Your task to perform on an android device: turn off improve location accuracy Image 0: 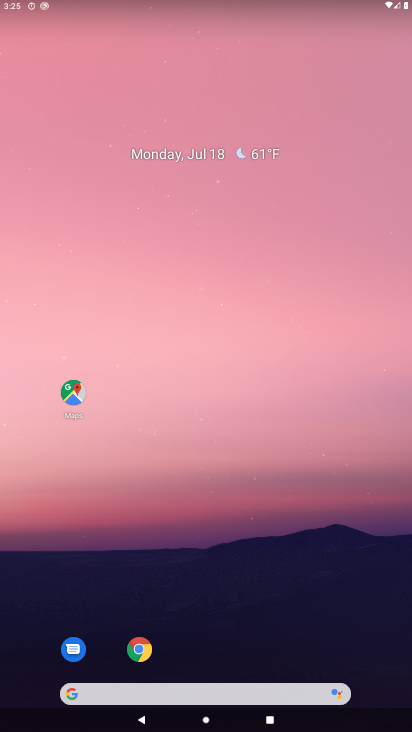
Step 0: drag from (33, 709) to (111, 338)
Your task to perform on an android device: turn off improve location accuracy Image 1: 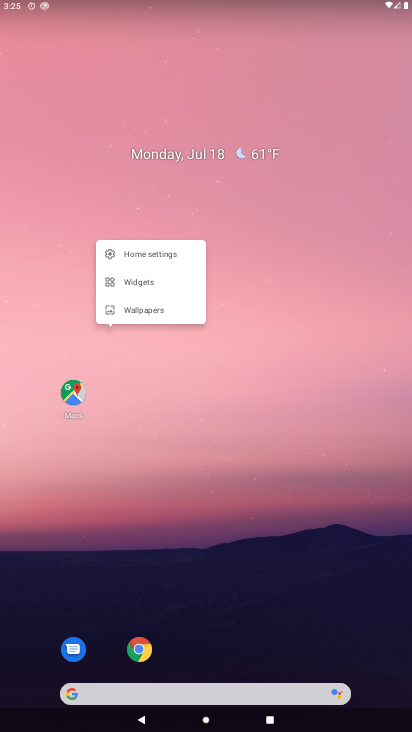
Step 1: drag from (15, 675) to (268, 169)
Your task to perform on an android device: turn off improve location accuracy Image 2: 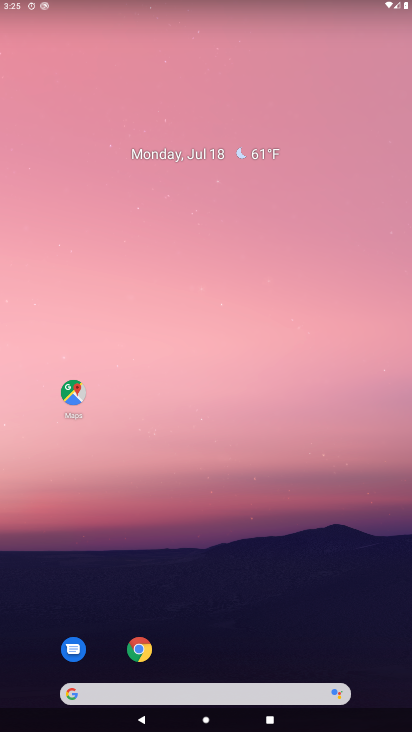
Step 2: drag from (15, 684) to (194, 104)
Your task to perform on an android device: turn off improve location accuracy Image 3: 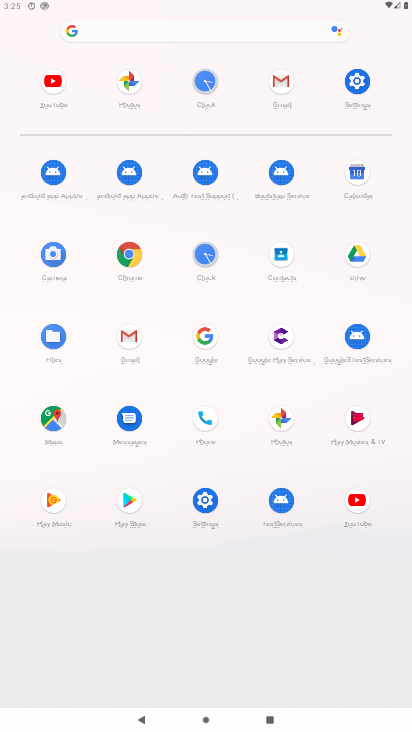
Step 3: click (210, 508)
Your task to perform on an android device: turn off improve location accuracy Image 4: 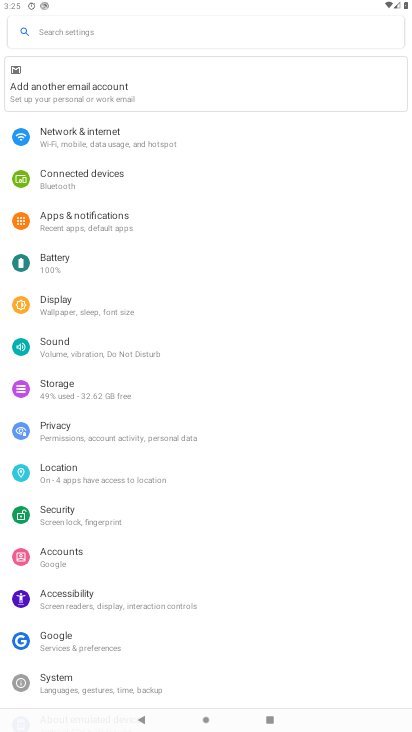
Step 4: click (100, 476)
Your task to perform on an android device: turn off improve location accuracy Image 5: 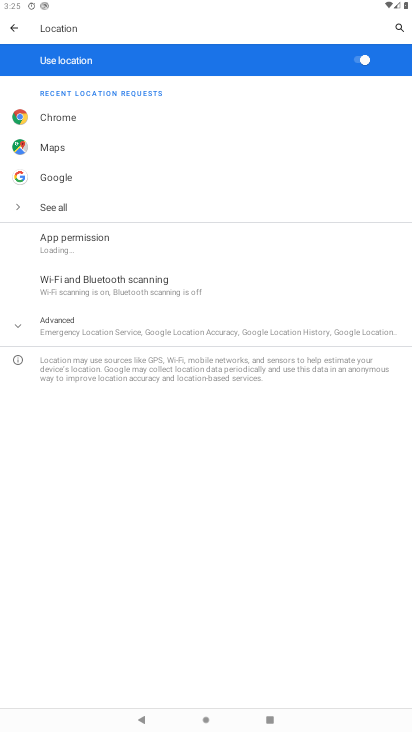
Step 5: click (74, 331)
Your task to perform on an android device: turn off improve location accuracy Image 6: 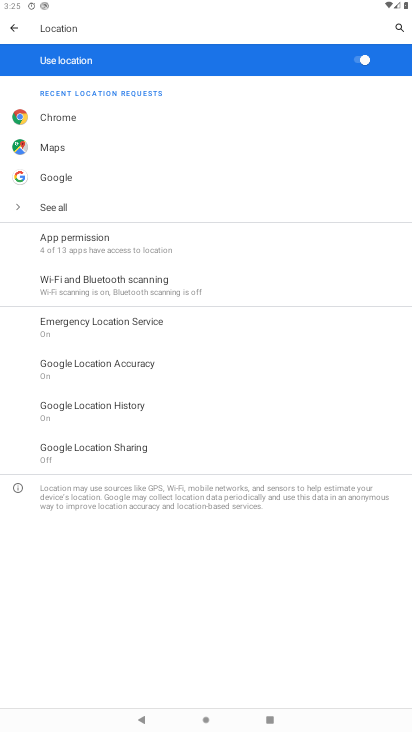
Step 6: click (94, 402)
Your task to perform on an android device: turn off improve location accuracy Image 7: 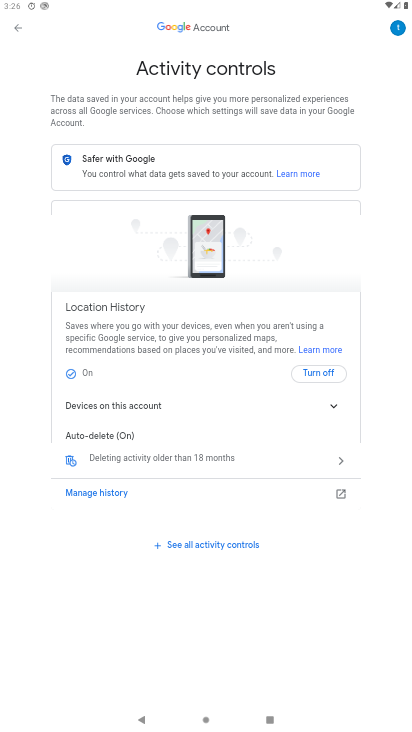
Step 7: task complete